Your task to perform on an android device: Open Google Chrome Image 0: 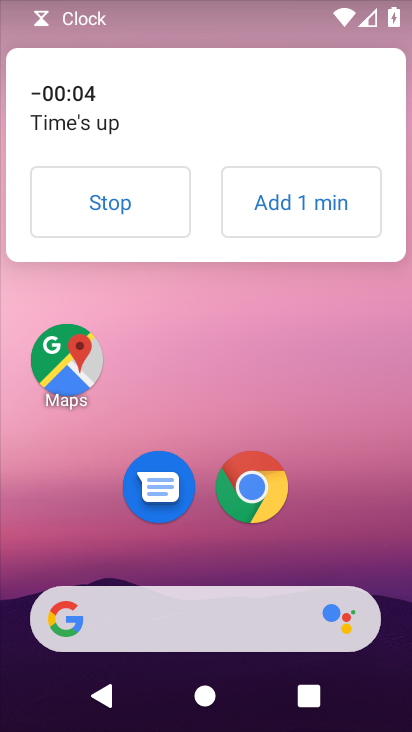
Step 0: click (108, 209)
Your task to perform on an android device: Open Google Chrome Image 1: 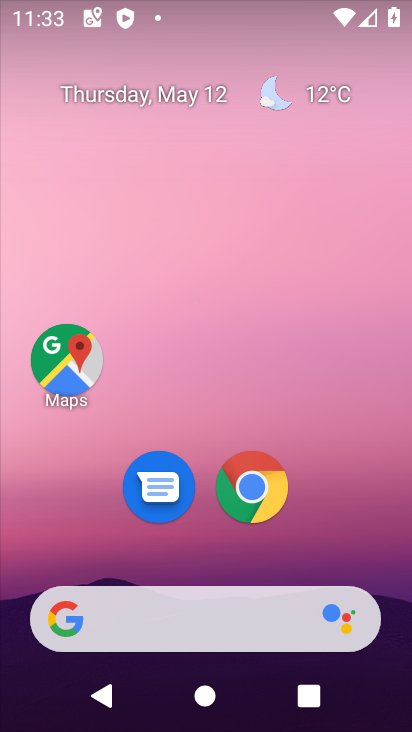
Step 1: click (252, 490)
Your task to perform on an android device: Open Google Chrome Image 2: 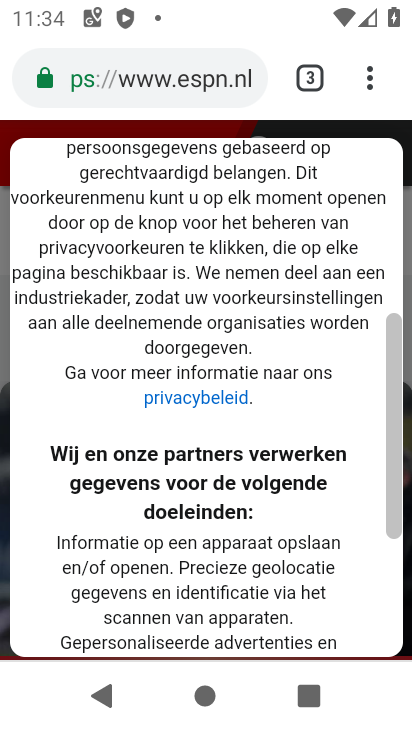
Step 2: task complete